Your task to perform on an android device: Go to sound settings Image 0: 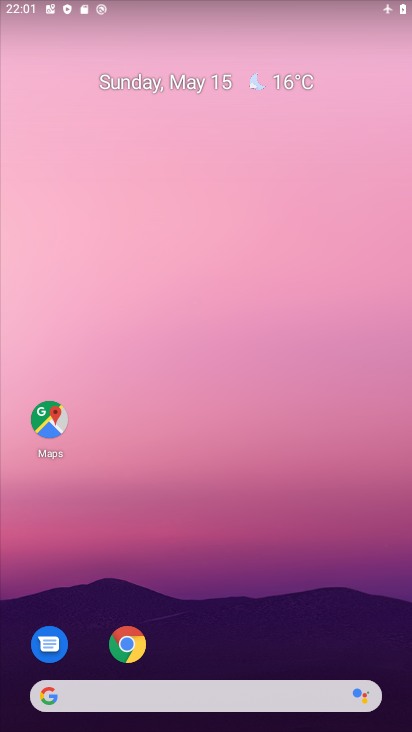
Step 0: drag from (168, 637) to (270, 162)
Your task to perform on an android device: Go to sound settings Image 1: 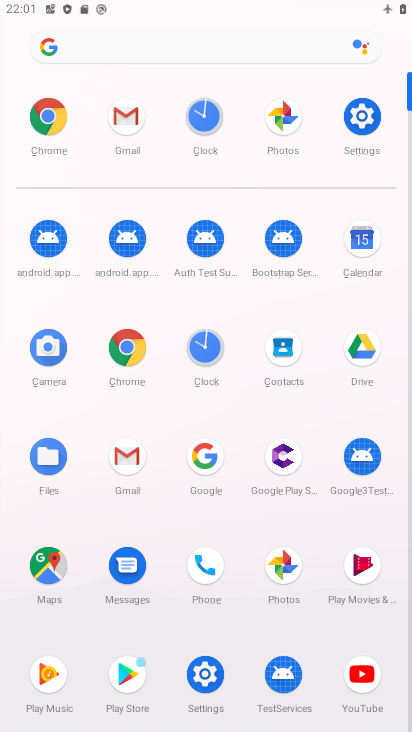
Step 1: click (357, 103)
Your task to perform on an android device: Go to sound settings Image 2: 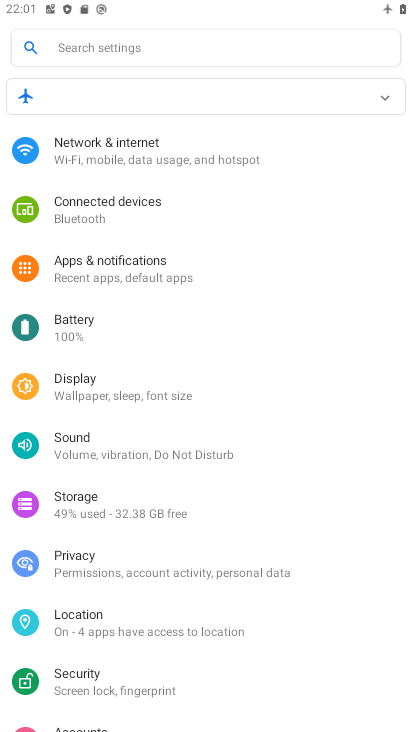
Step 2: click (96, 448)
Your task to perform on an android device: Go to sound settings Image 3: 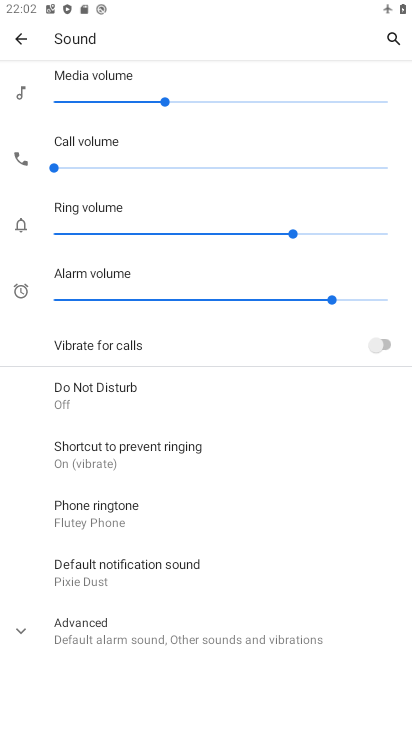
Step 3: task complete